Your task to perform on an android device: delete location history Image 0: 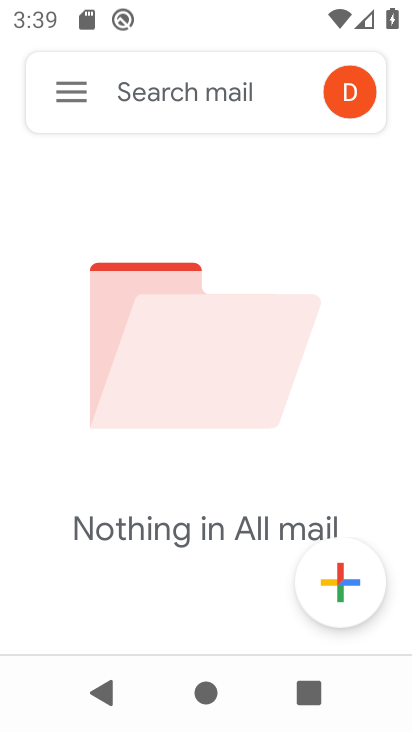
Step 0: click (61, 104)
Your task to perform on an android device: delete location history Image 1: 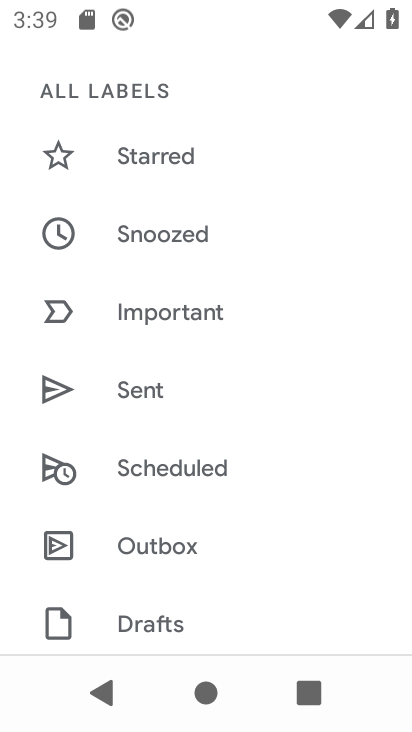
Step 1: press home button
Your task to perform on an android device: delete location history Image 2: 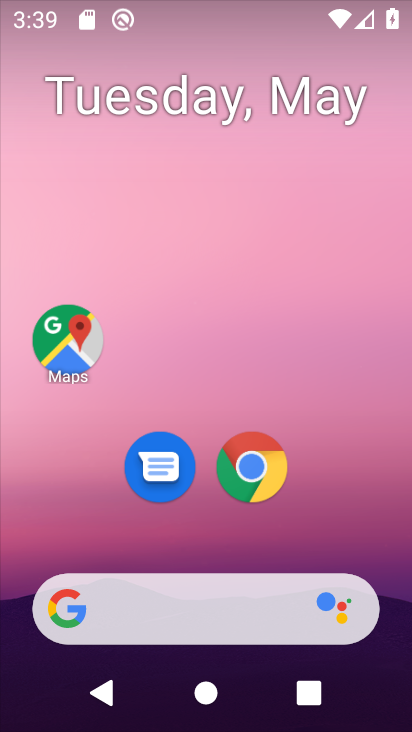
Step 2: drag from (233, 556) to (185, 123)
Your task to perform on an android device: delete location history Image 3: 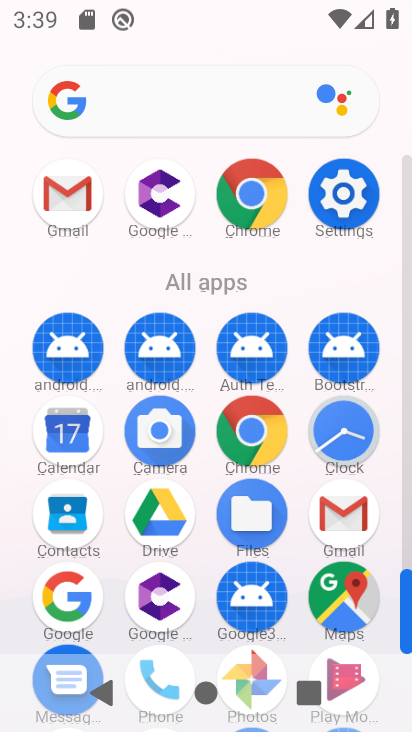
Step 3: click (340, 189)
Your task to perform on an android device: delete location history Image 4: 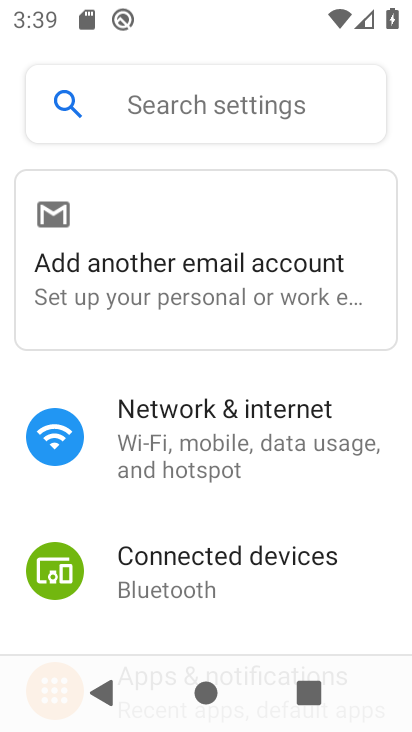
Step 4: drag from (218, 564) to (170, 149)
Your task to perform on an android device: delete location history Image 5: 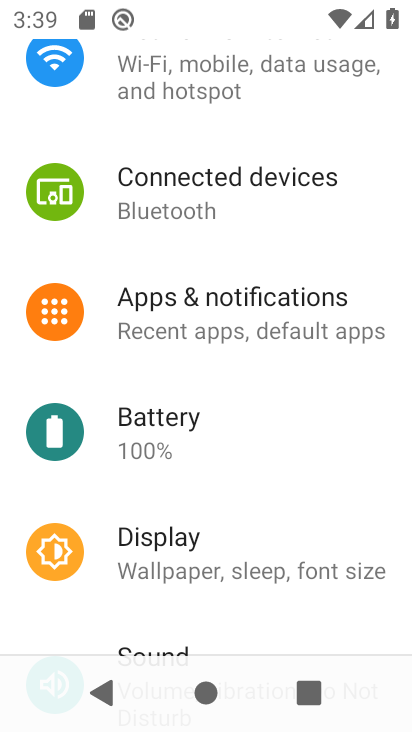
Step 5: drag from (197, 573) to (164, 131)
Your task to perform on an android device: delete location history Image 6: 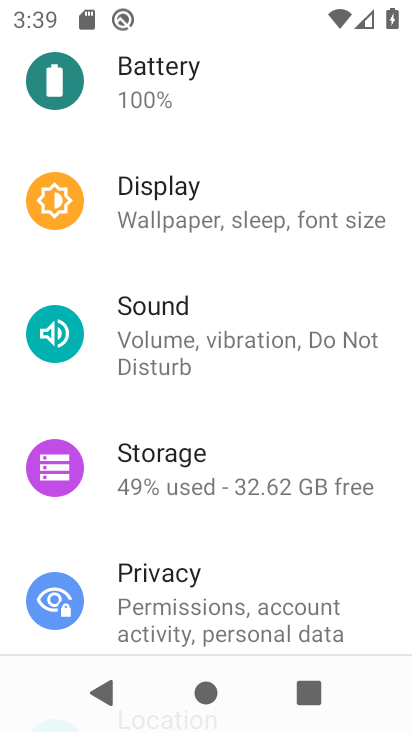
Step 6: drag from (177, 297) to (177, 243)
Your task to perform on an android device: delete location history Image 7: 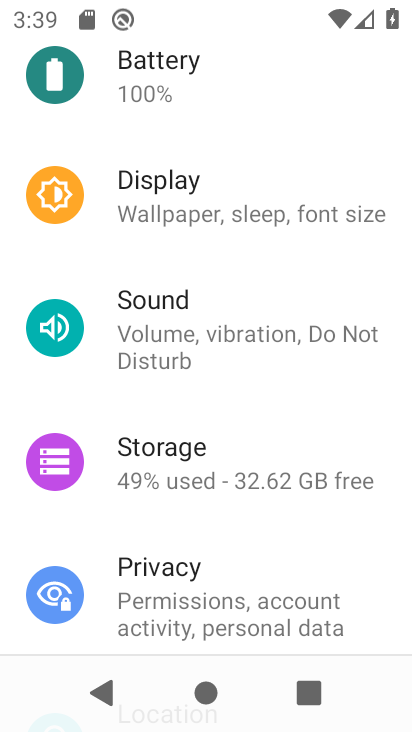
Step 7: drag from (182, 244) to (182, 441)
Your task to perform on an android device: delete location history Image 8: 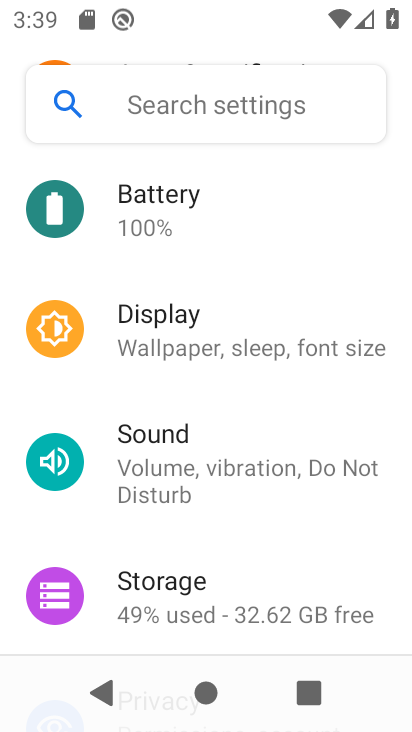
Step 8: drag from (235, 396) to (237, 434)
Your task to perform on an android device: delete location history Image 9: 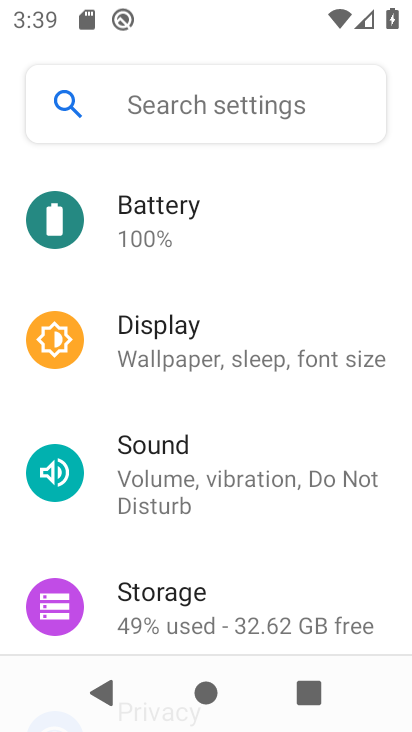
Step 9: drag from (224, 573) to (224, 184)
Your task to perform on an android device: delete location history Image 10: 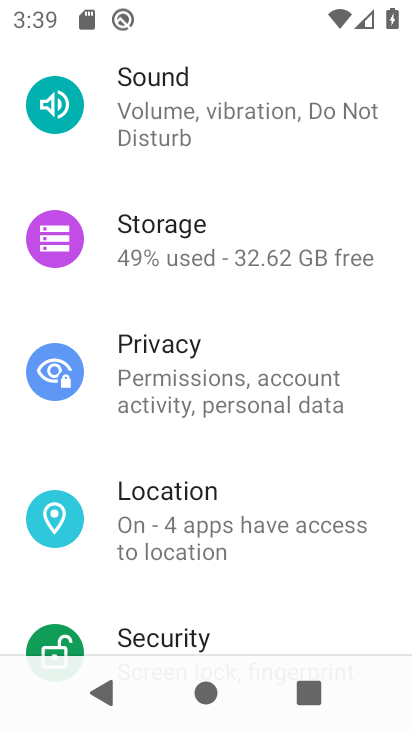
Step 10: click (200, 507)
Your task to perform on an android device: delete location history Image 11: 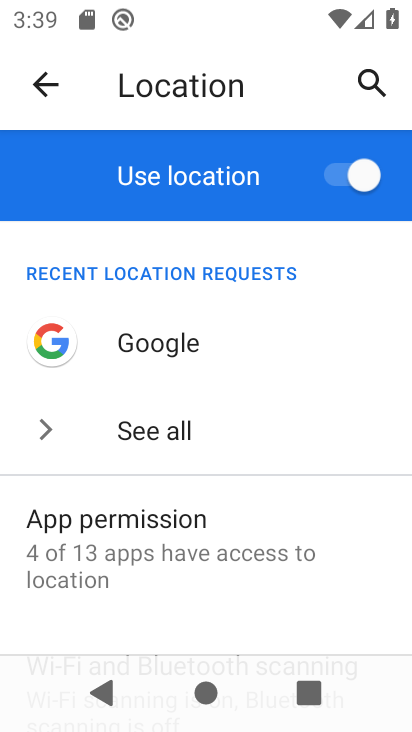
Step 11: drag from (227, 621) to (240, 76)
Your task to perform on an android device: delete location history Image 12: 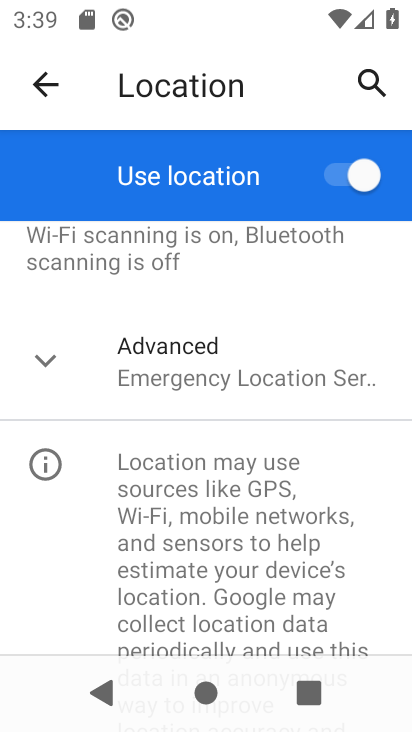
Step 12: click (191, 357)
Your task to perform on an android device: delete location history Image 13: 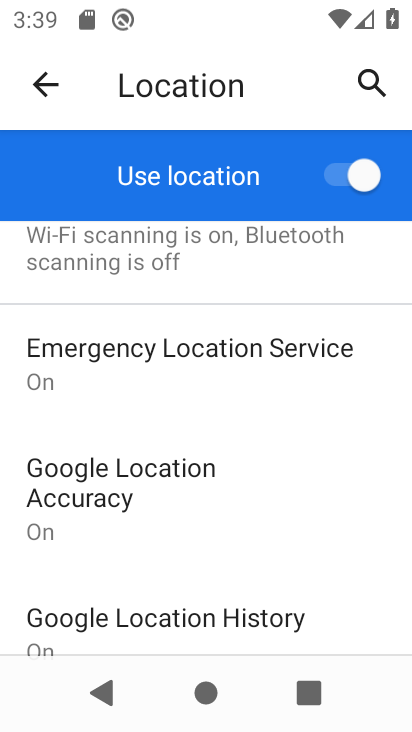
Step 13: click (117, 642)
Your task to perform on an android device: delete location history Image 14: 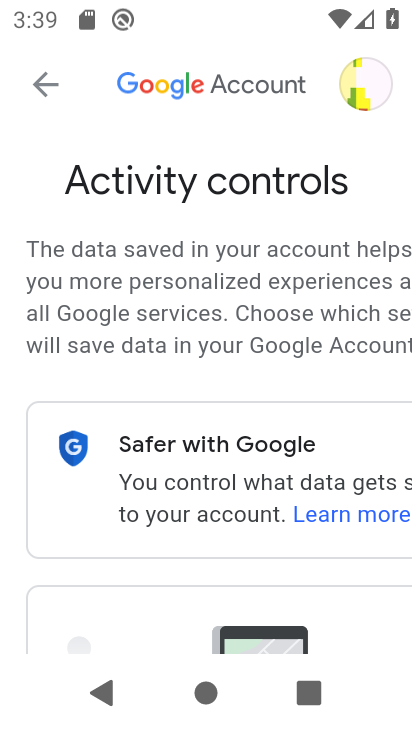
Step 14: drag from (169, 539) to (174, 54)
Your task to perform on an android device: delete location history Image 15: 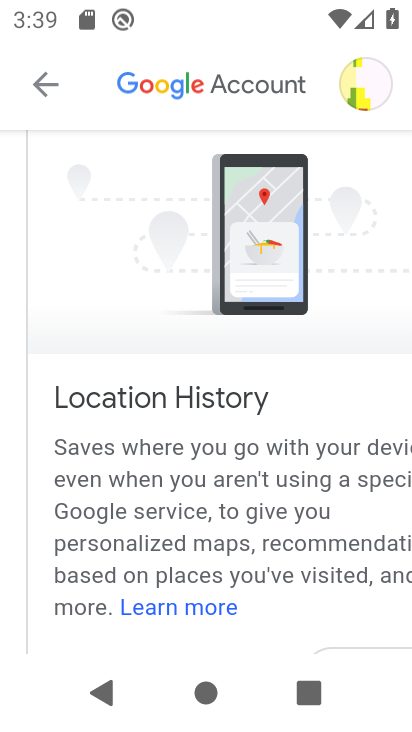
Step 15: drag from (179, 574) to (279, 143)
Your task to perform on an android device: delete location history Image 16: 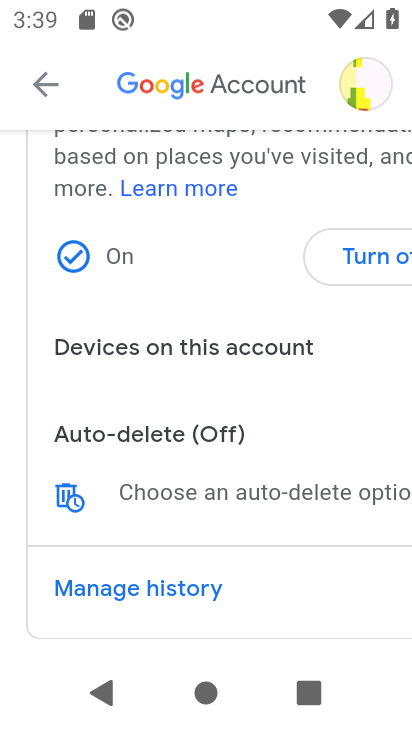
Step 16: click (90, 592)
Your task to perform on an android device: delete location history Image 17: 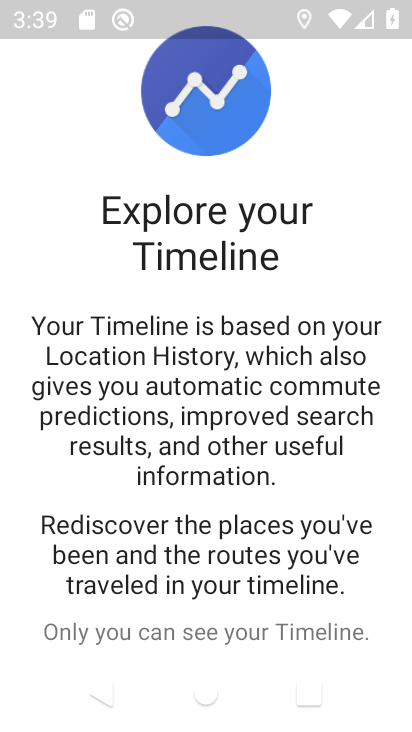
Step 17: drag from (176, 609) to (223, 170)
Your task to perform on an android device: delete location history Image 18: 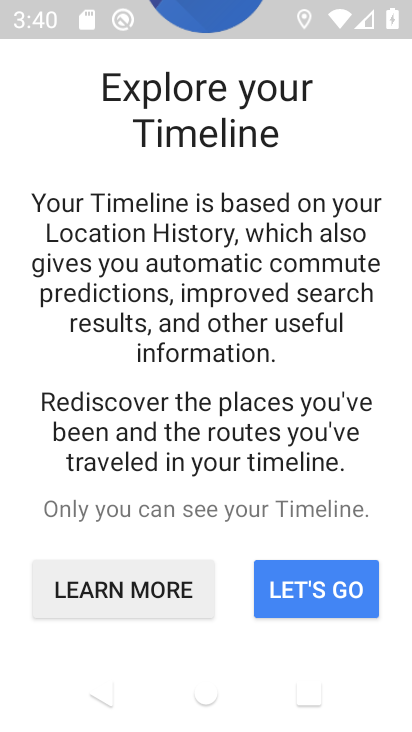
Step 18: click (287, 602)
Your task to perform on an android device: delete location history Image 19: 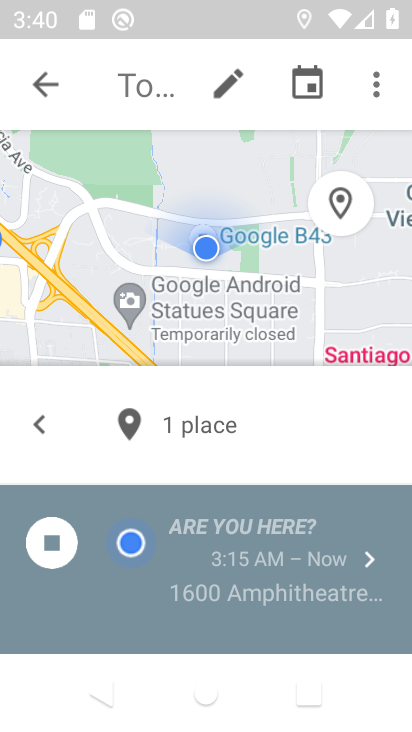
Step 19: click (378, 88)
Your task to perform on an android device: delete location history Image 20: 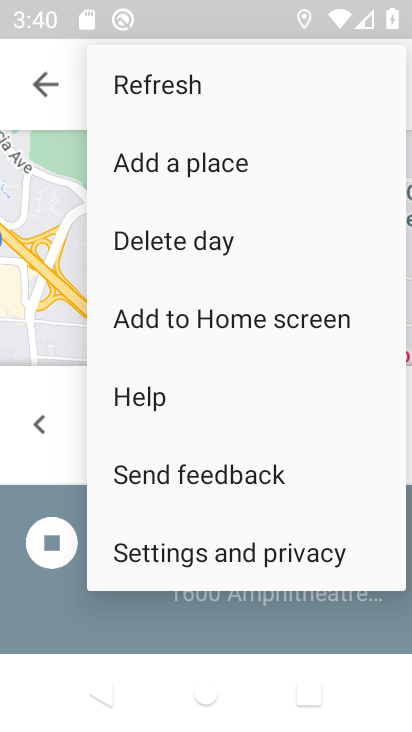
Step 20: click (217, 573)
Your task to perform on an android device: delete location history Image 21: 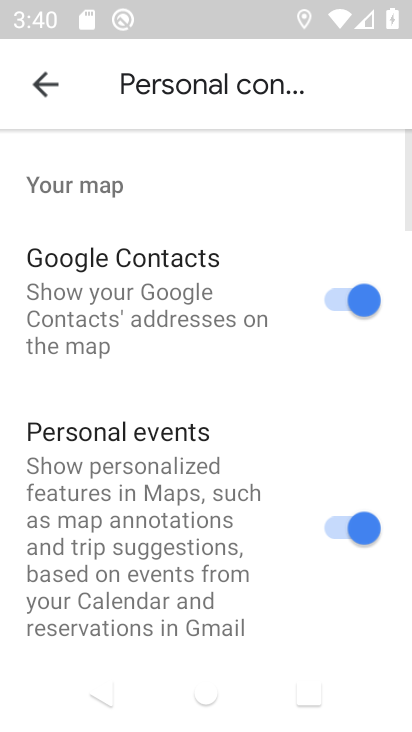
Step 21: drag from (195, 634) to (167, 165)
Your task to perform on an android device: delete location history Image 22: 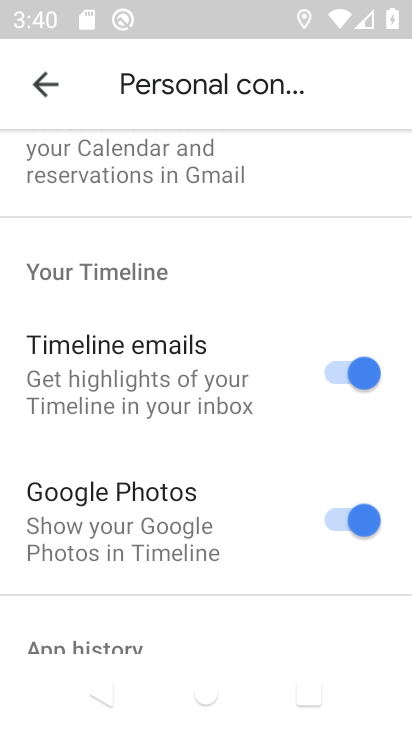
Step 22: drag from (173, 573) to (207, 77)
Your task to perform on an android device: delete location history Image 23: 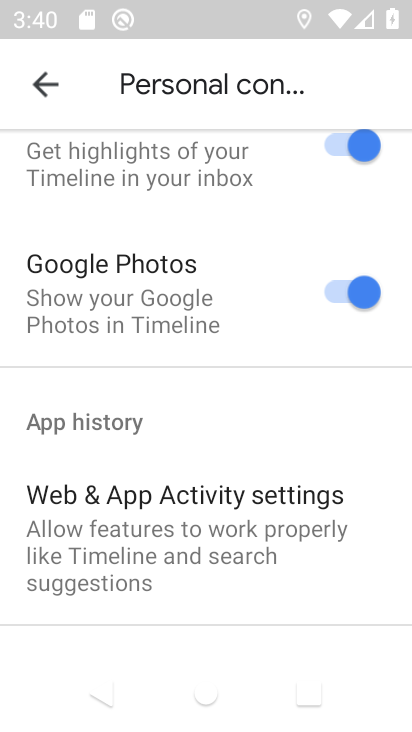
Step 23: drag from (160, 577) to (254, 131)
Your task to perform on an android device: delete location history Image 24: 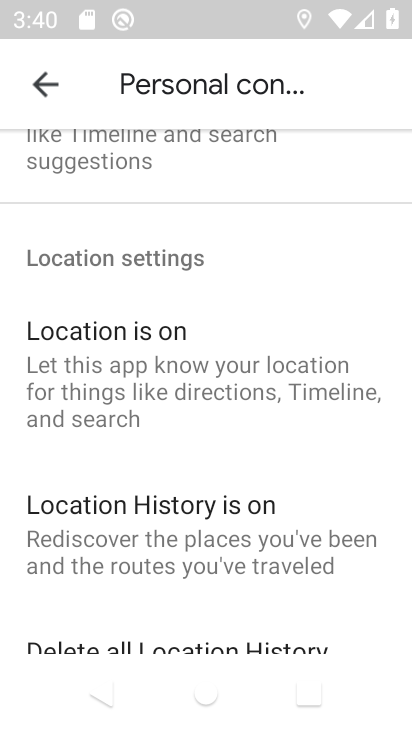
Step 24: click (180, 319)
Your task to perform on an android device: delete location history Image 25: 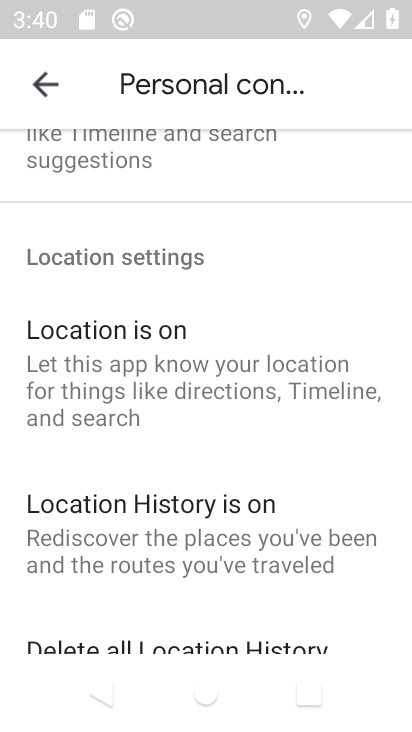
Step 25: click (115, 654)
Your task to perform on an android device: delete location history Image 26: 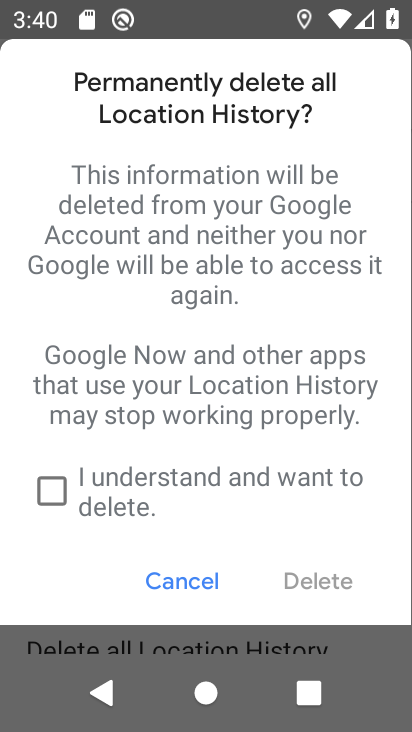
Step 26: click (49, 491)
Your task to perform on an android device: delete location history Image 27: 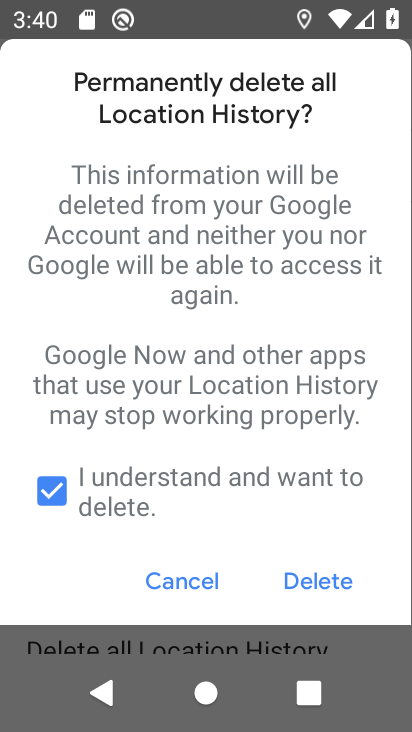
Step 27: click (348, 585)
Your task to perform on an android device: delete location history Image 28: 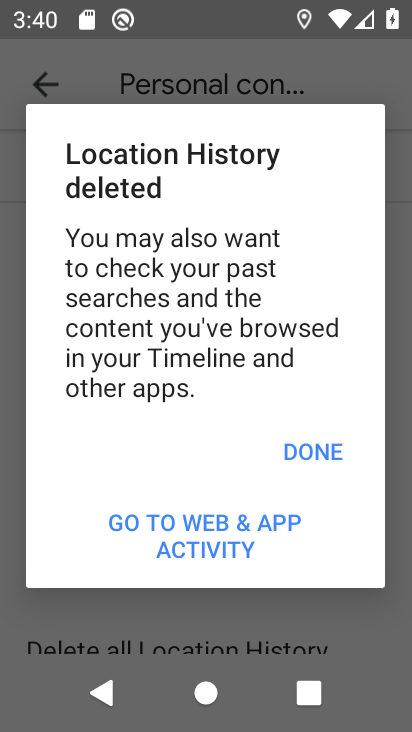
Step 28: click (316, 442)
Your task to perform on an android device: delete location history Image 29: 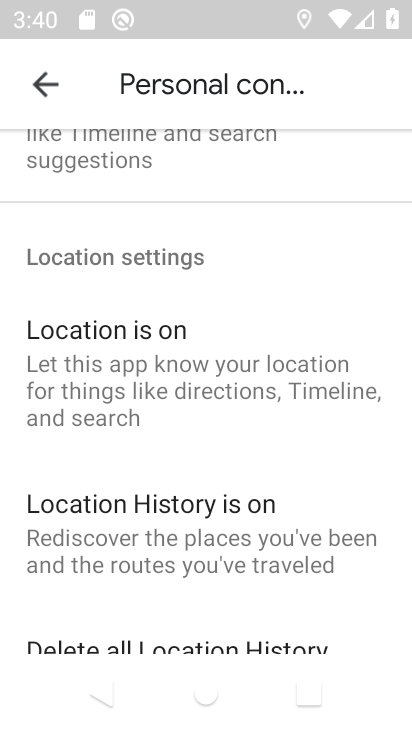
Step 29: task complete